Your task to perform on an android device: toggle airplane mode Image 0: 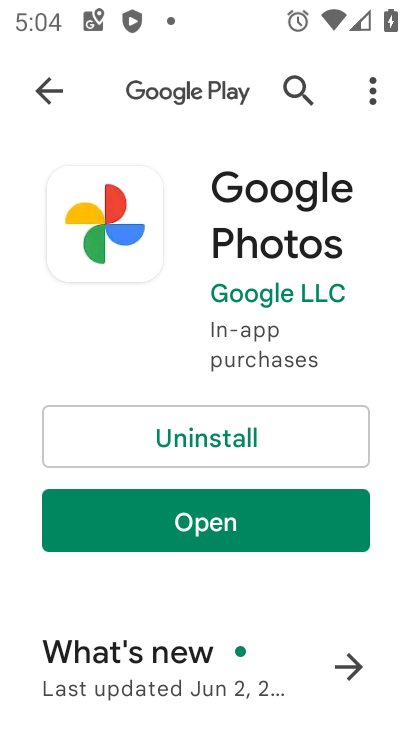
Step 0: drag from (266, 8) to (218, 557)
Your task to perform on an android device: toggle airplane mode Image 1: 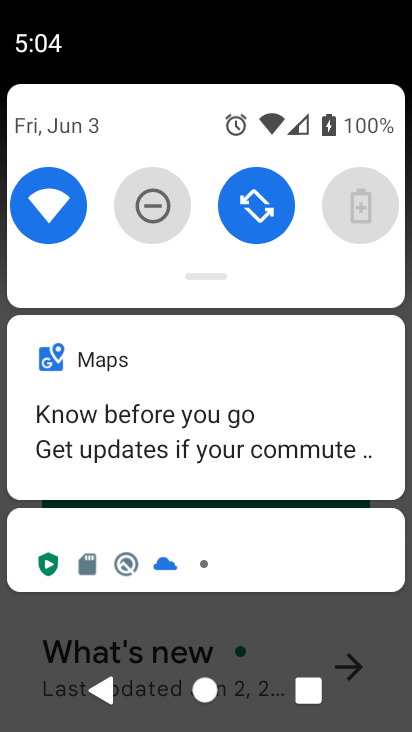
Step 1: drag from (267, 286) to (263, 690)
Your task to perform on an android device: toggle airplane mode Image 2: 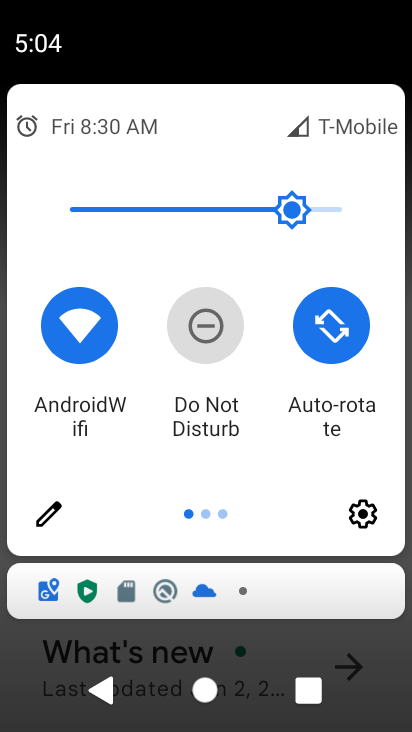
Step 2: drag from (351, 386) to (2, 469)
Your task to perform on an android device: toggle airplane mode Image 3: 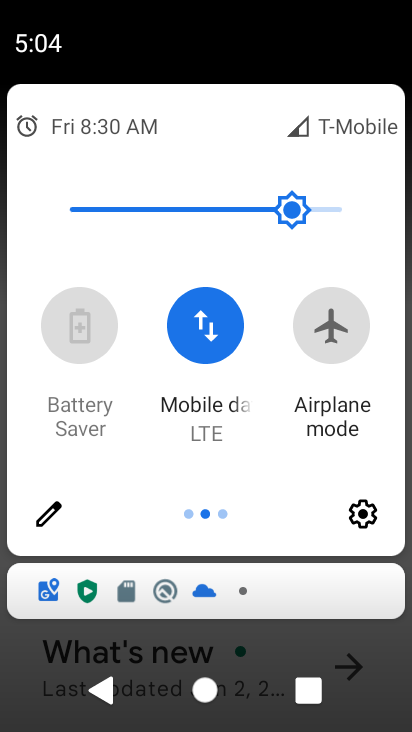
Step 3: click (332, 321)
Your task to perform on an android device: toggle airplane mode Image 4: 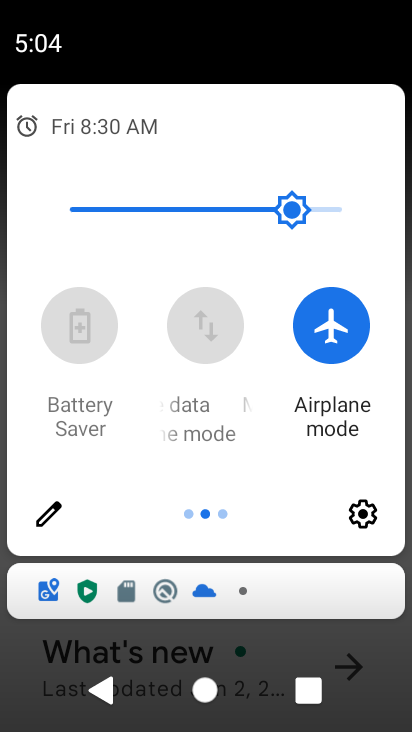
Step 4: task complete